Your task to perform on an android device: Open calendar and show me the second week of next month Image 0: 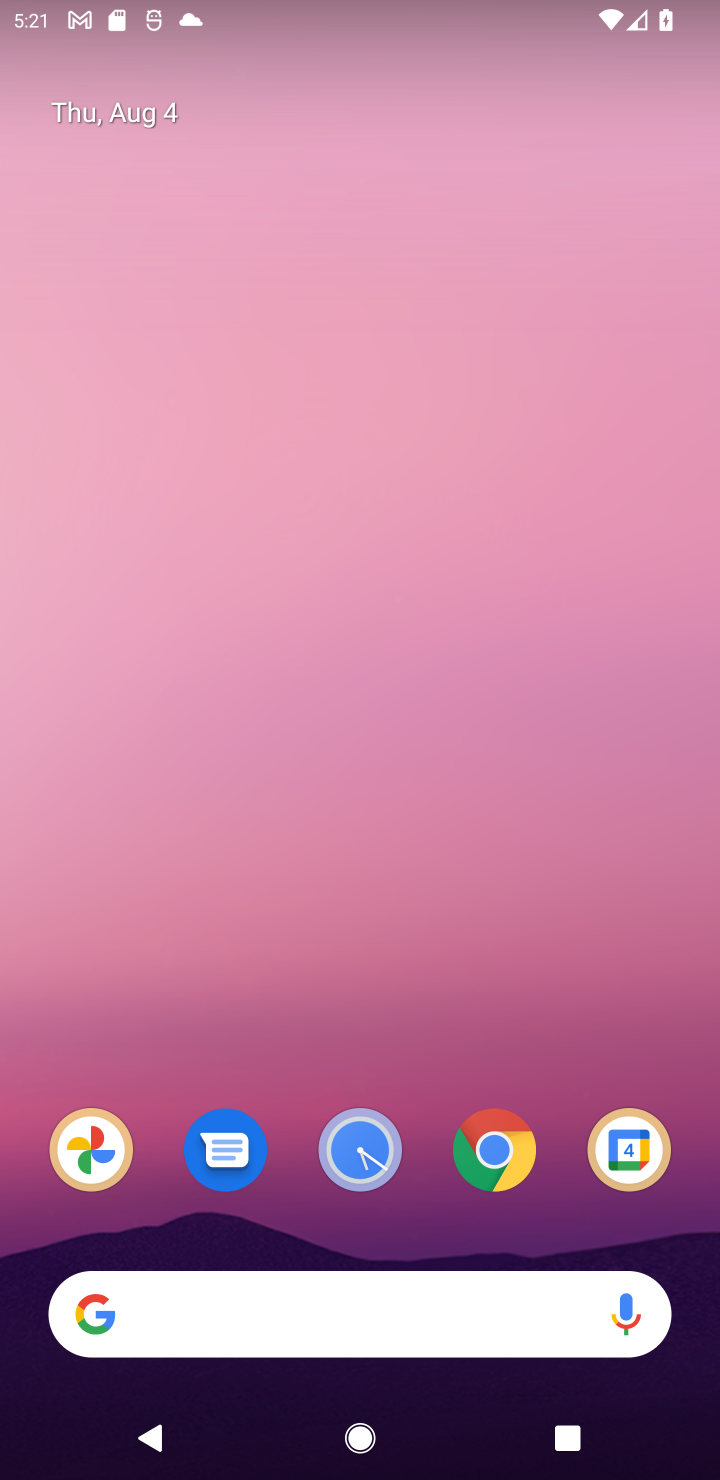
Step 0: drag from (280, 1226) to (352, 0)
Your task to perform on an android device: Open calendar and show me the second week of next month Image 1: 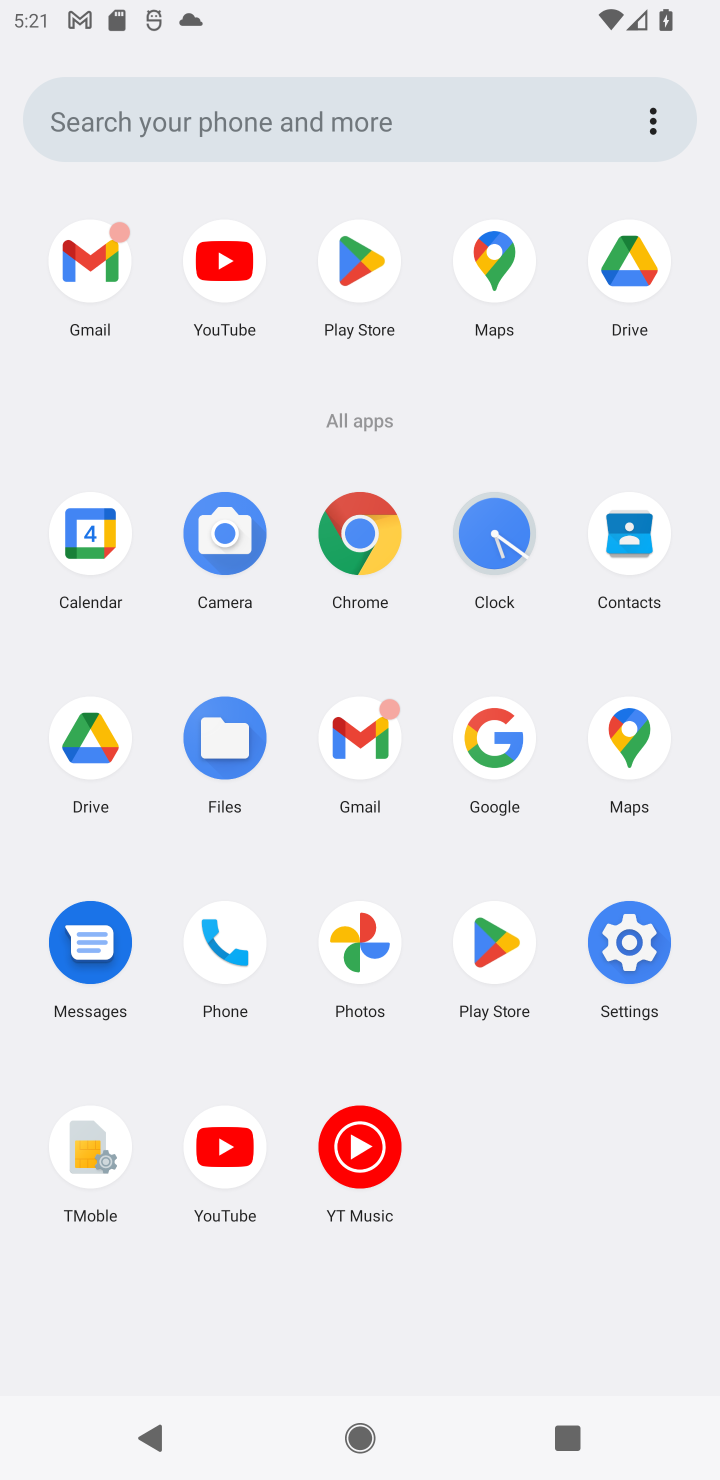
Step 1: click (77, 538)
Your task to perform on an android device: Open calendar and show me the second week of next month Image 2: 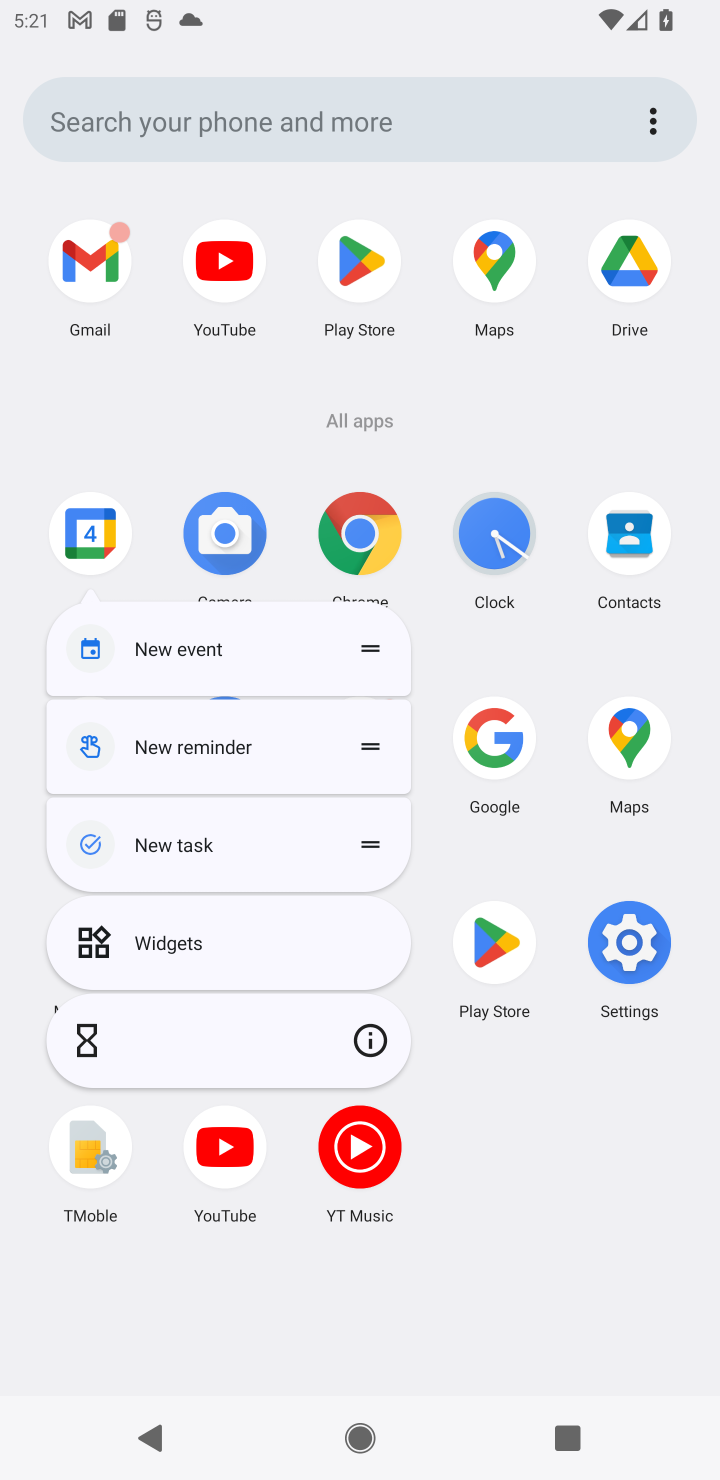
Step 2: click (87, 527)
Your task to perform on an android device: Open calendar and show me the second week of next month Image 3: 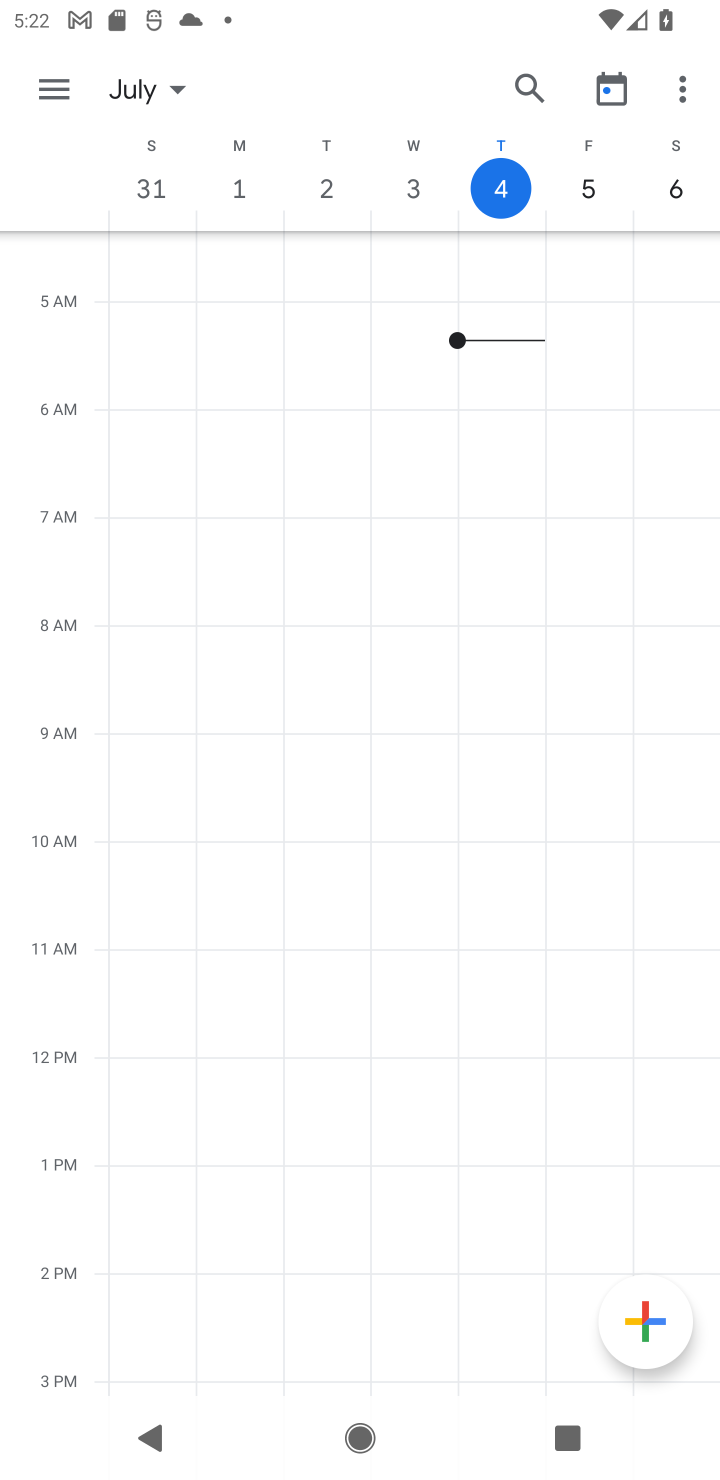
Step 3: task complete